Your task to perform on an android device: allow notifications from all sites in the chrome app Image 0: 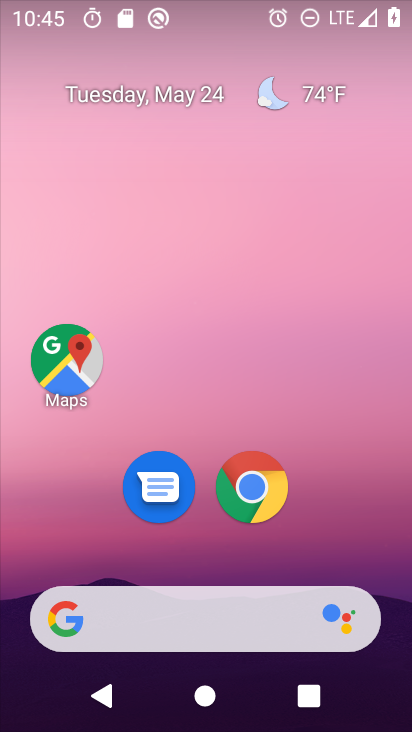
Step 0: click (253, 496)
Your task to perform on an android device: allow notifications from all sites in the chrome app Image 1: 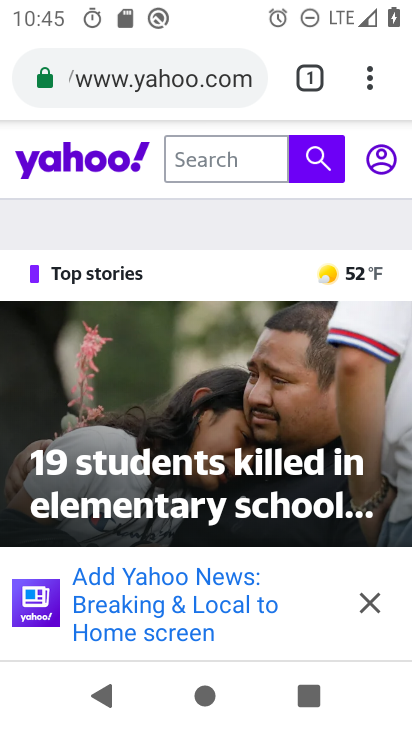
Step 1: click (368, 79)
Your task to perform on an android device: allow notifications from all sites in the chrome app Image 2: 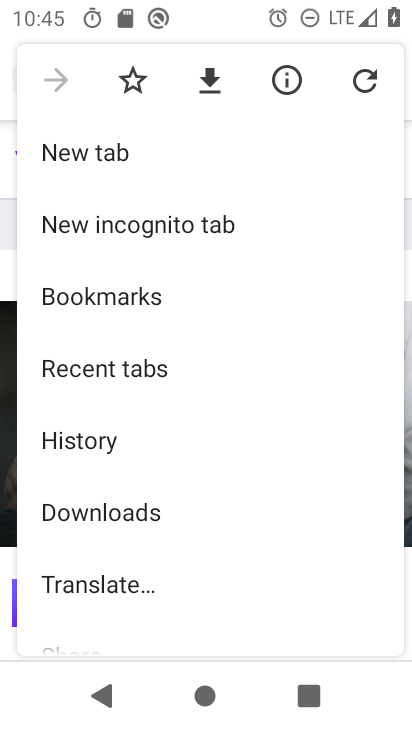
Step 2: drag from (197, 547) to (198, 150)
Your task to perform on an android device: allow notifications from all sites in the chrome app Image 3: 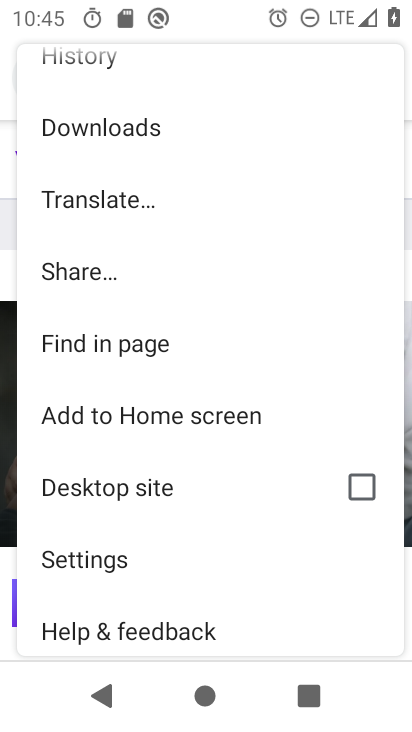
Step 3: drag from (187, 493) to (187, 222)
Your task to perform on an android device: allow notifications from all sites in the chrome app Image 4: 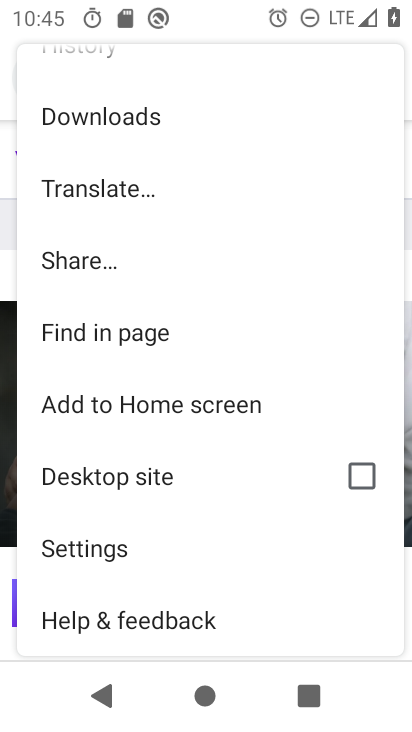
Step 4: click (104, 554)
Your task to perform on an android device: allow notifications from all sites in the chrome app Image 5: 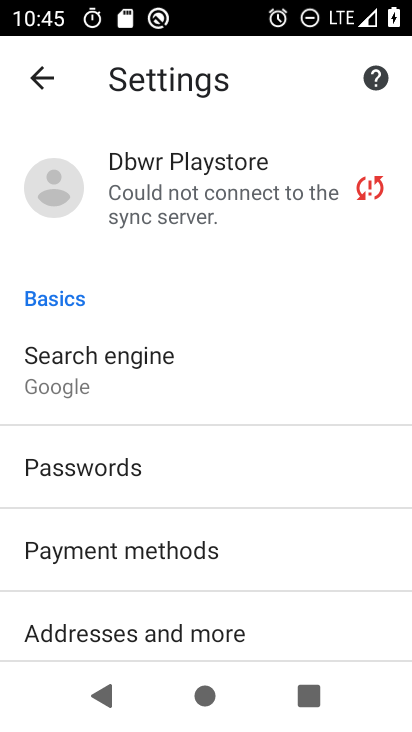
Step 5: drag from (192, 566) to (208, 157)
Your task to perform on an android device: allow notifications from all sites in the chrome app Image 6: 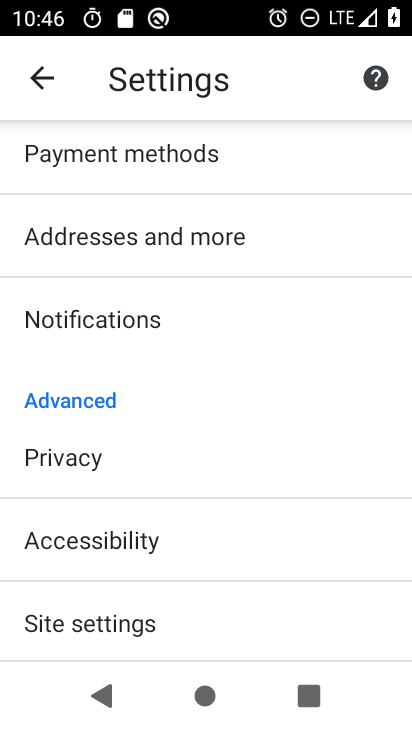
Step 6: drag from (170, 542) to (179, 290)
Your task to perform on an android device: allow notifications from all sites in the chrome app Image 7: 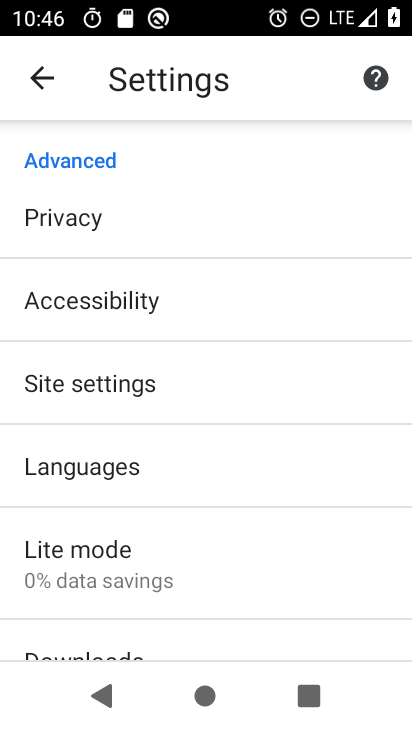
Step 7: click (80, 385)
Your task to perform on an android device: allow notifications from all sites in the chrome app Image 8: 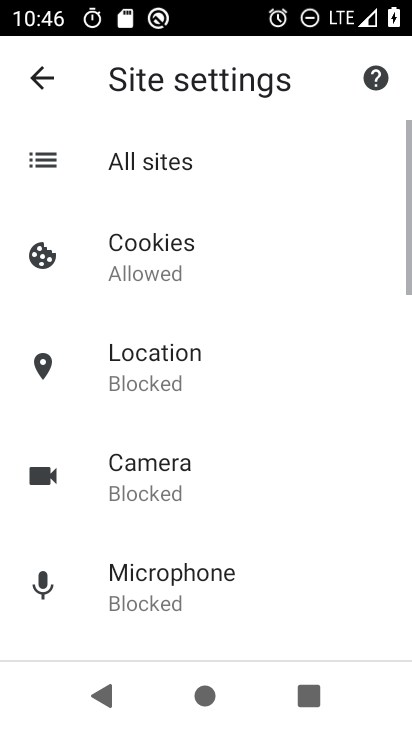
Step 8: drag from (235, 591) to (212, 206)
Your task to perform on an android device: allow notifications from all sites in the chrome app Image 9: 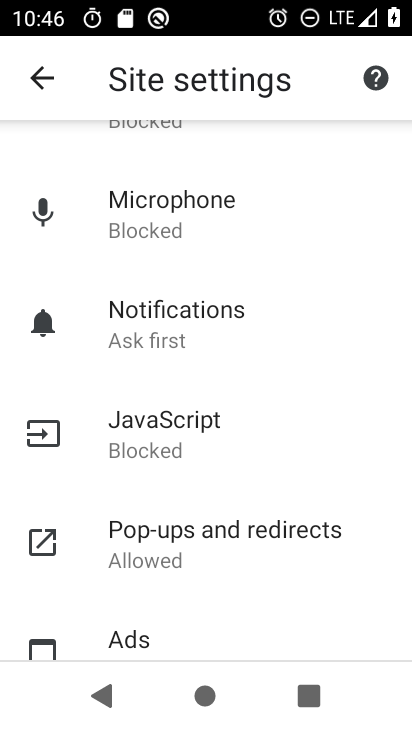
Step 9: click (144, 335)
Your task to perform on an android device: allow notifications from all sites in the chrome app Image 10: 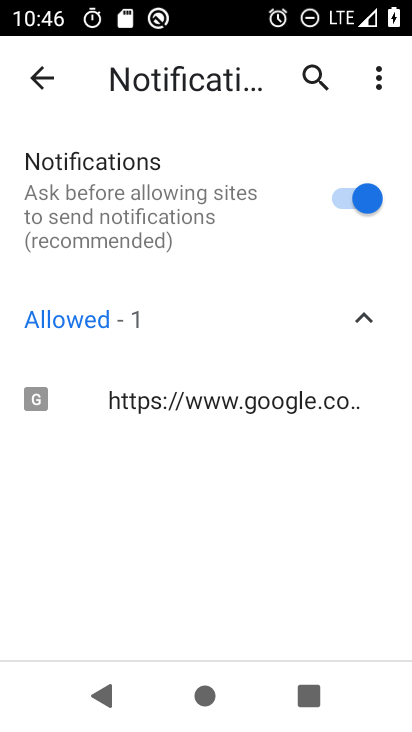
Step 10: task complete